Your task to perform on an android device: Go to Reddit.com Image 0: 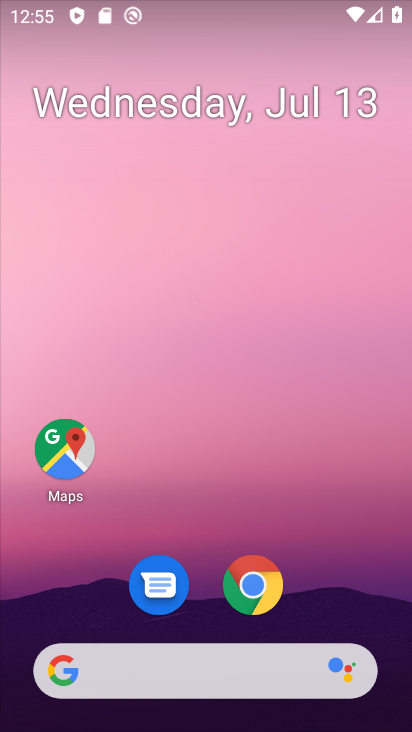
Step 0: click (279, 685)
Your task to perform on an android device: Go to Reddit.com Image 1: 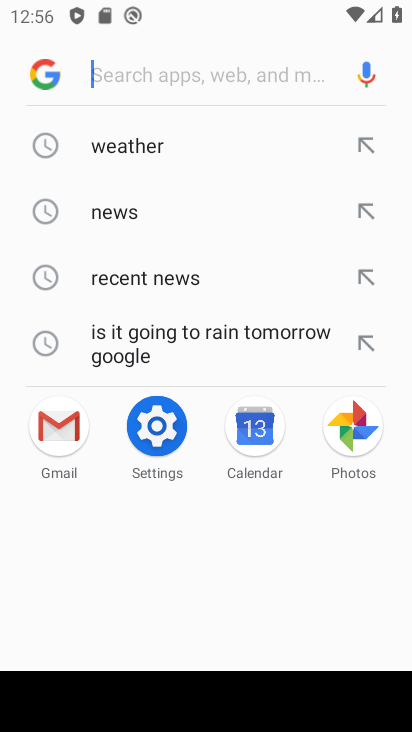
Step 1: type "reddit.com"
Your task to perform on an android device: Go to Reddit.com Image 2: 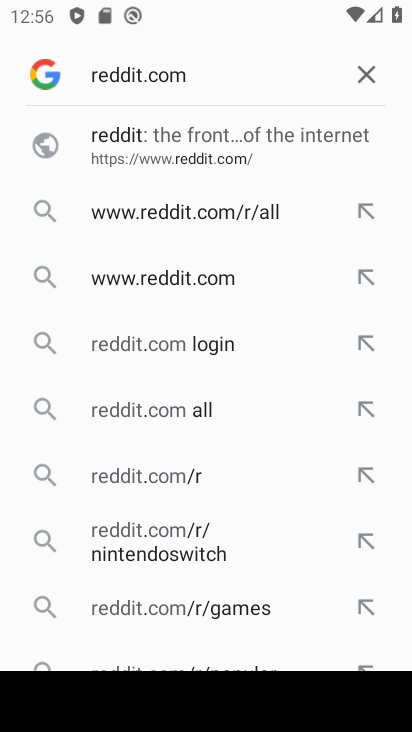
Step 2: click (101, 136)
Your task to perform on an android device: Go to Reddit.com Image 3: 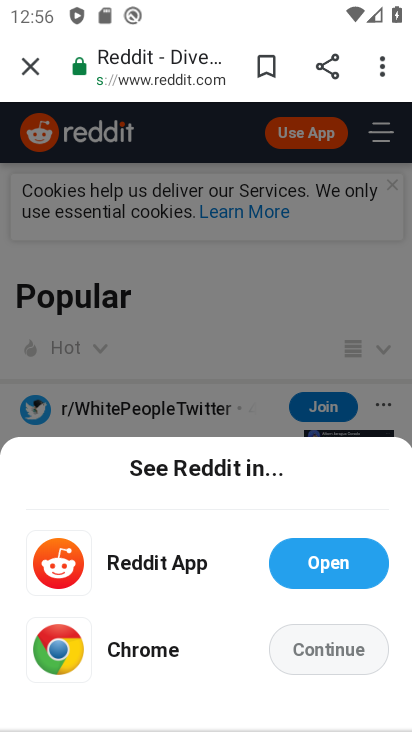
Step 3: click (353, 656)
Your task to perform on an android device: Go to Reddit.com Image 4: 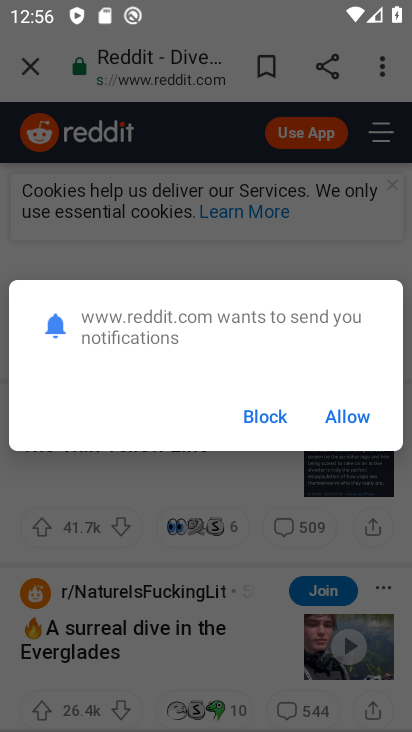
Step 4: click (275, 412)
Your task to perform on an android device: Go to Reddit.com Image 5: 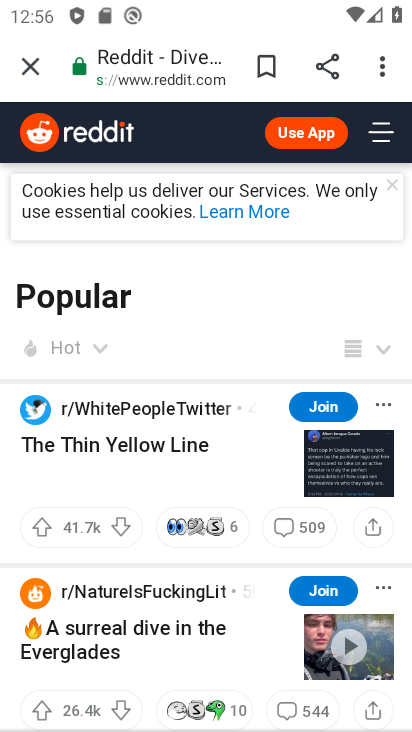
Step 5: task complete